Your task to perform on an android device: Is it going to rain this weekend? Image 0: 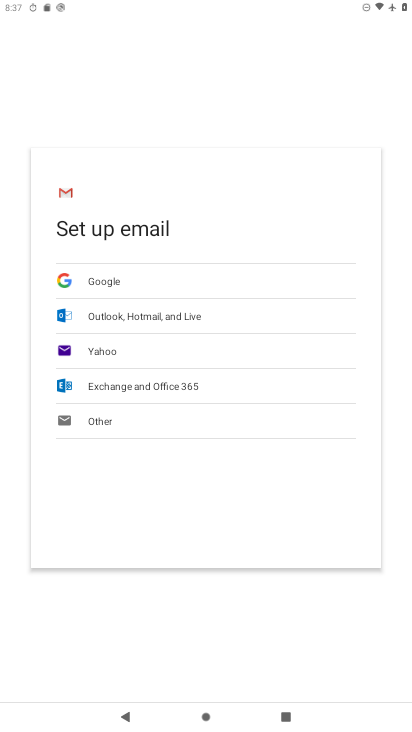
Step 0: press home button
Your task to perform on an android device: Is it going to rain this weekend? Image 1: 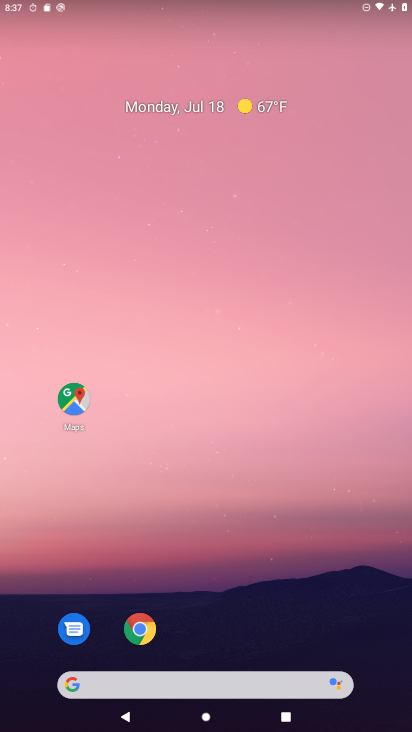
Step 1: click (181, 686)
Your task to perform on an android device: Is it going to rain this weekend? Image 2: 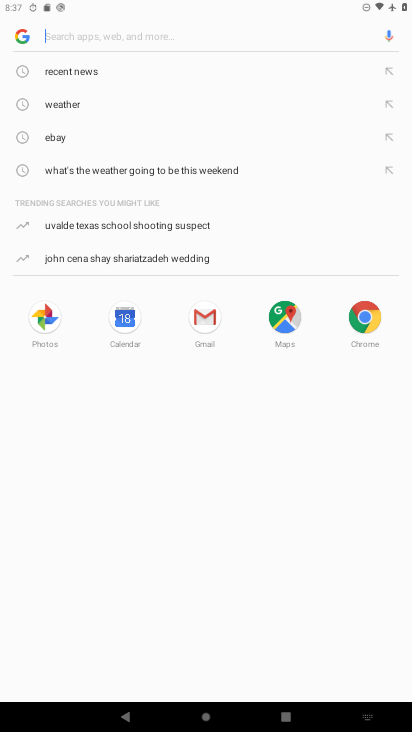
Step 2: click (74, 106)
Your task to perform on an android device: Is it going to rain this weekend? Image 3: 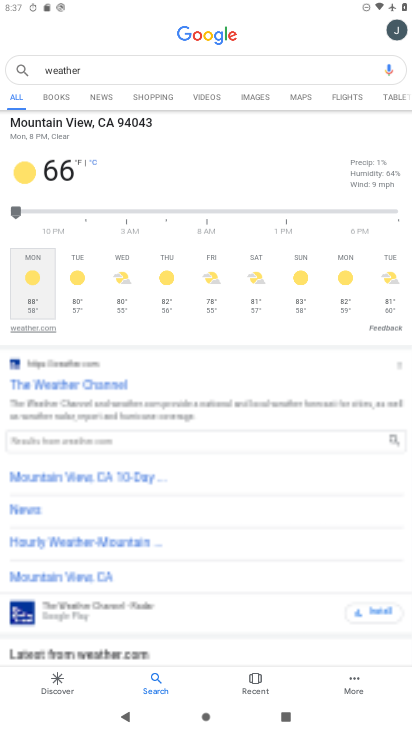
Step 3: task complete